Your task to perform on an android device: open a bookmark in the chrome app Image 0: 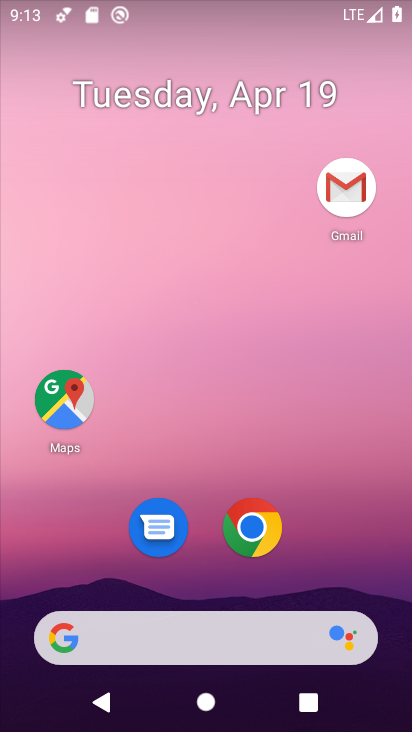
Step 0: drag from (376, 544) to (345, 43)
Your task to perform on an android device: open a bookmark in the chrome app Image 1: 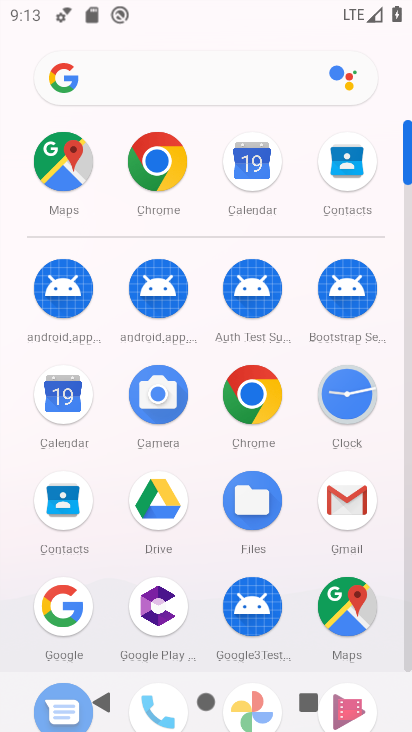
Step 1: click (258, 401)
Your task to perform on an android device: open a bookmark in the chrome app Image 2: 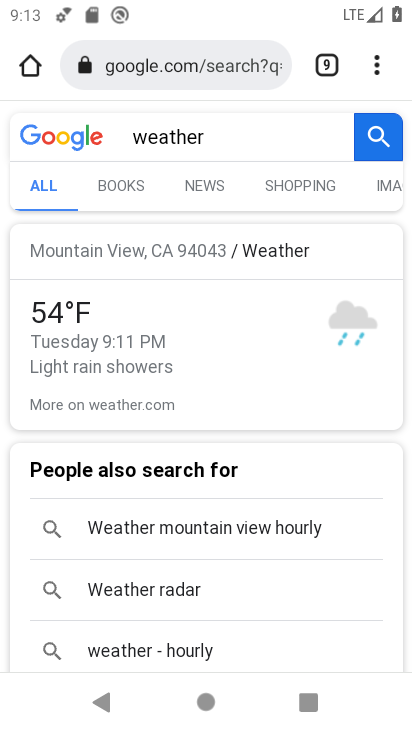
Step 2: click (400, 79)
Your task to perform on an android device: open a bookmark in the chrome app Image 3: 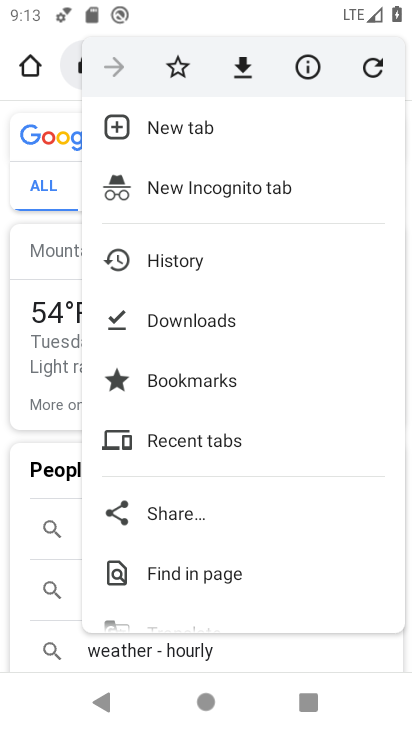
Step 3: click (210, 378)
Your task to perform on an android device: open a bookmark in the chrome app Image 4: 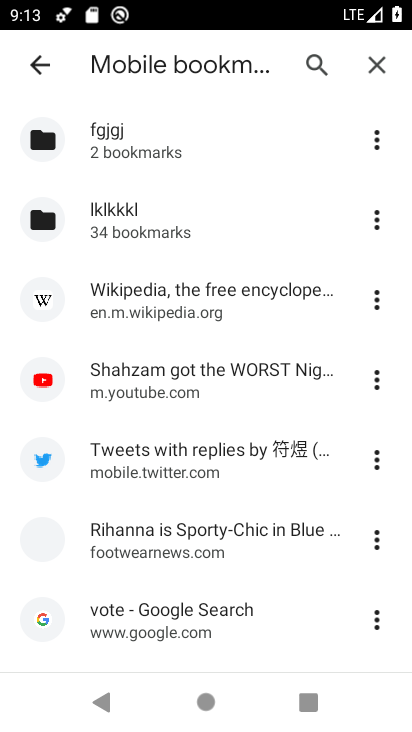
Step 4: task complete